Your task to perform on an android device: delete the emails in spam in the gmail app Image 0: 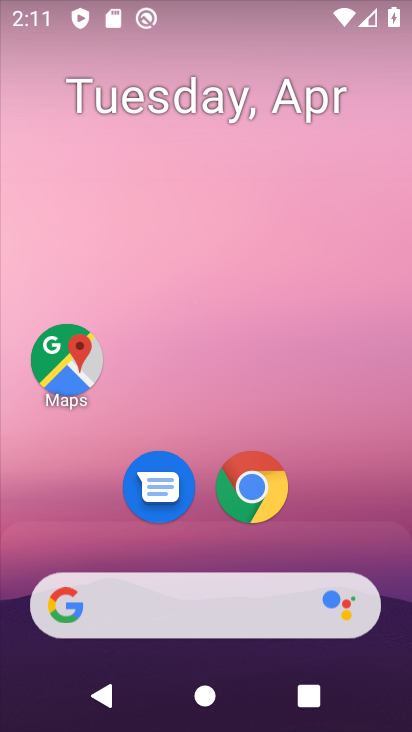
Step 0: drag from (365, 336) to (370, 114)
Your task to perform on an android device: delete the emails in spam in the gmail app Image 1: 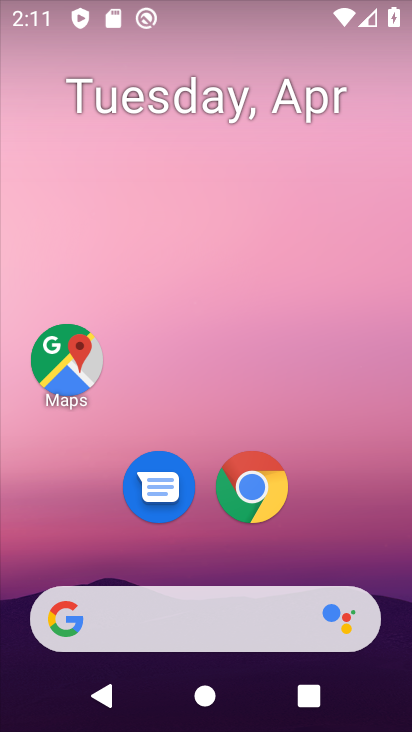
Step 1: drag from (317, 501) to (316, 90)
Your task to perform on an android device: delete the emails in spam in the gmail app Image 2: 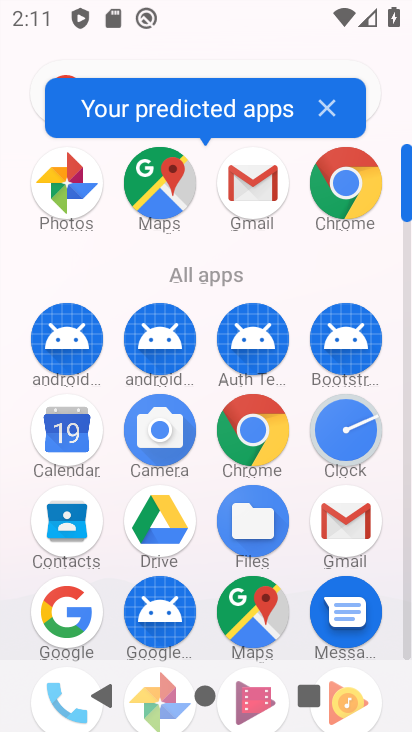
Step 2: click (267, 187)
Your task to perform on an android device: delete the emails in spam in the gmail app Image 3: 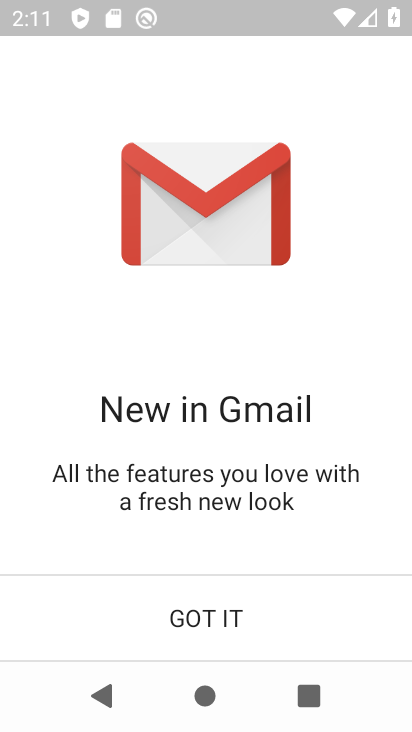
Step 3: click (207, 621)
Your task to perform on an android device: delete the emails in spam in the gmail app Image 4: 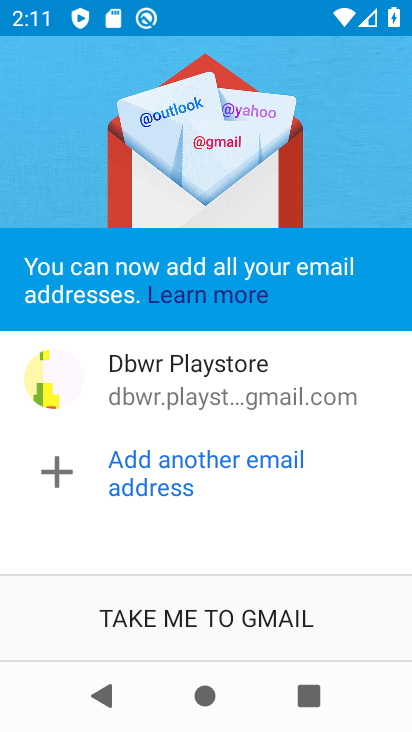
Step 4: click (201, 620)
Your task to perform on an android device: delete the emails in spam in the gmail app Image 5: 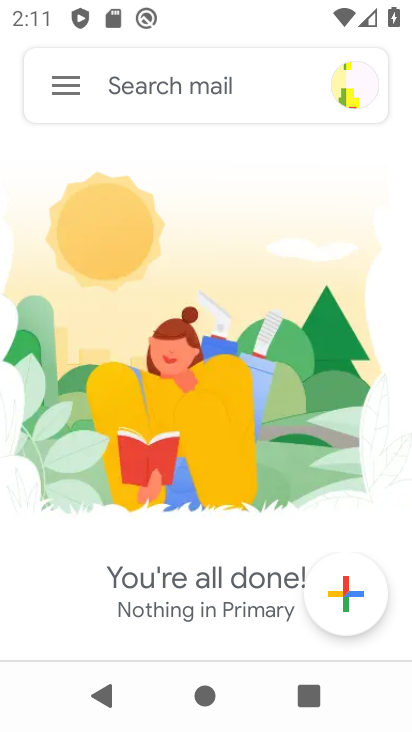
Step 5: click (73, 83)
Your task to perform on an android device: delete the emails in spam in the gmail app Image 6: 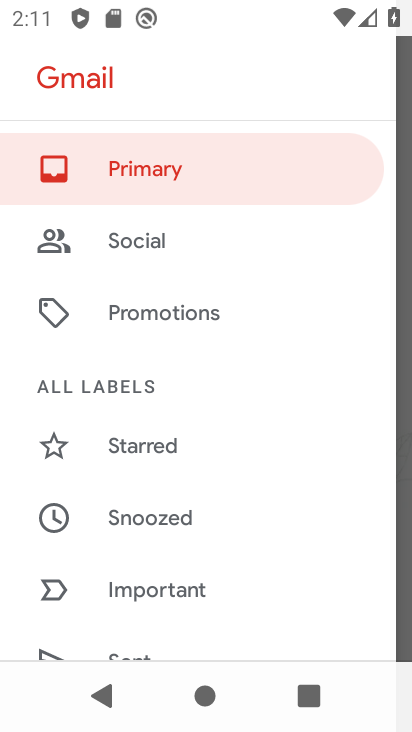
Step 6: drag from (191, 592) to (228, 278)
Your task to perform on an android device: delete the emails in spam in the gmail app Image 7: 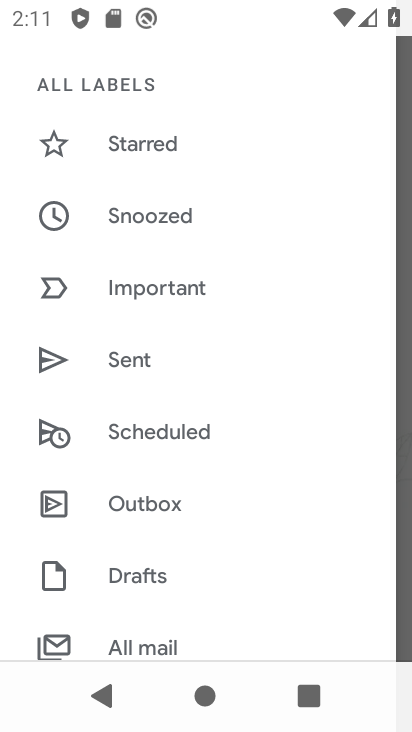
Step 7: drag from (185, 602) to (211, 310)
Your task to perform on an android device: delete the emails in spam in the gmail app Image 8: 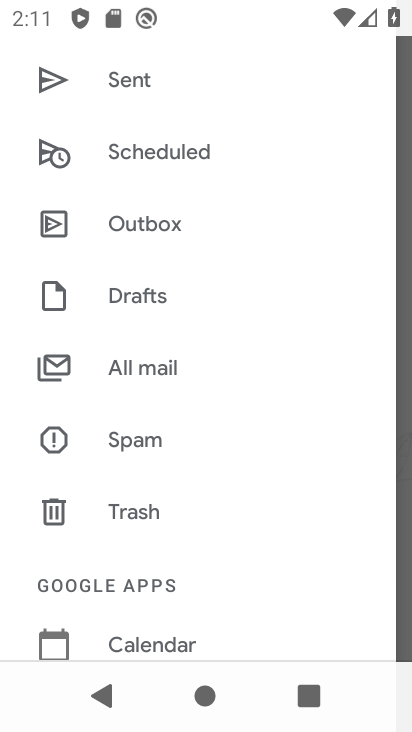
Step 8: click (178, 448)
Your task to perform on an android device: delete the emails in spam in the gmail app Image 9: 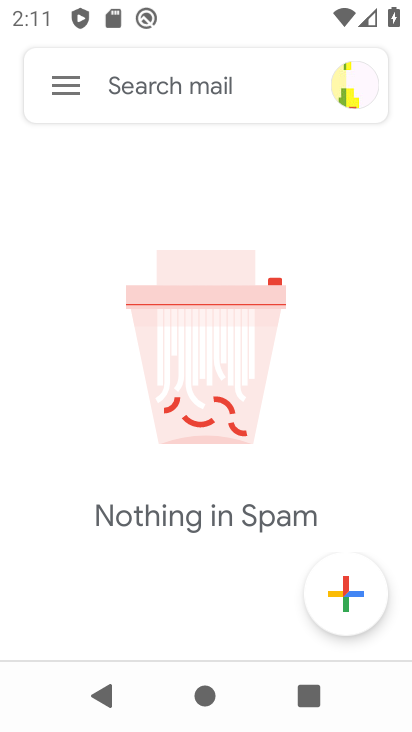
Step 9: task complete